Your task to perform on an android device: toggle translation in the chrome app Image 0: 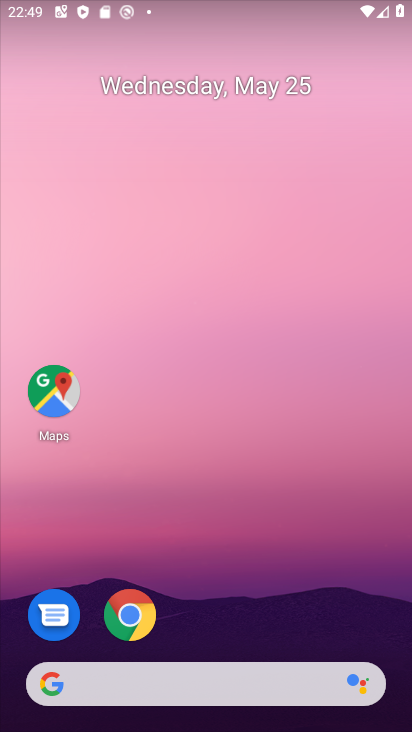
Step 0: click (129, 620)
Your task to perform on an android device: toggle translation in the chrome app Image 1: 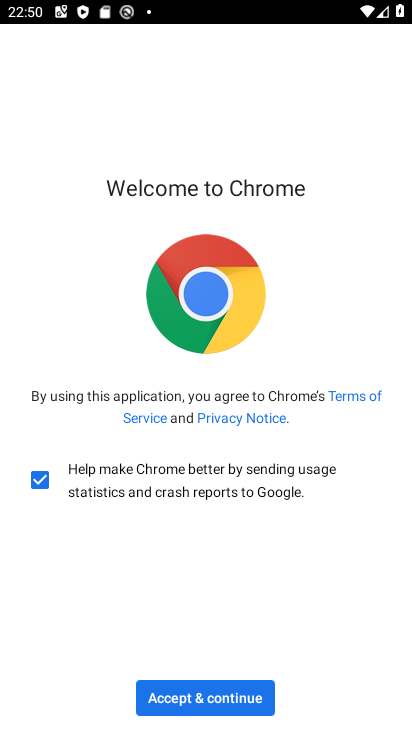
Step 1: click (194, 713)
Your task to perform on an android device: toggle translation in the chrome app Image 2: 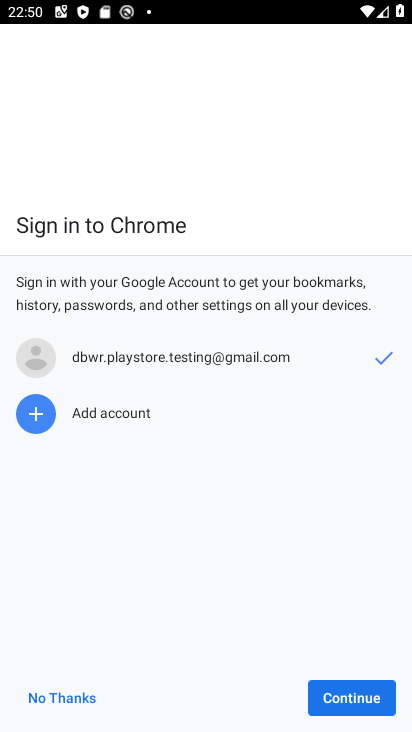
Step 2: click (365, 729)
Your task to perform on an android device: toggle translation in the chrome app Image 3: 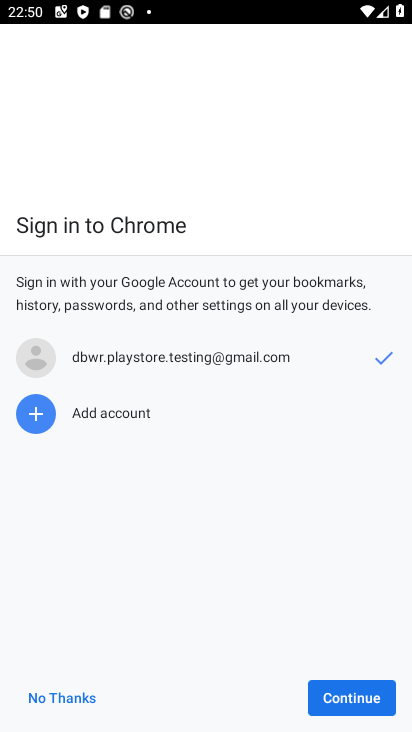
Step 3: click (361, 702)
Your task to perform on an android device: toggle translation in the chrome app Image 4: 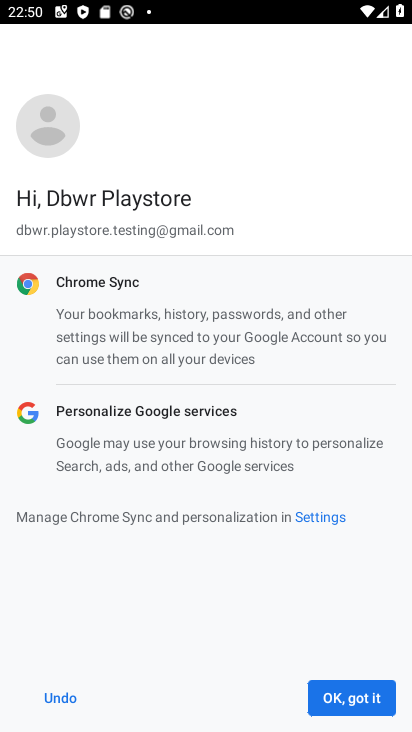
Step 4: click (360, 701)
Your task to perform on an android device: toggle translation in the chrome app Image 5: 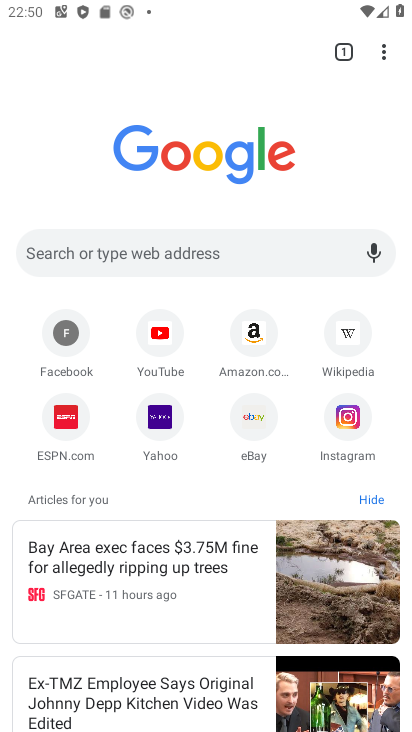
Step 5: click (386, 45)
Your task to perform on an android device: toggle translation in the chrome app Image 6: 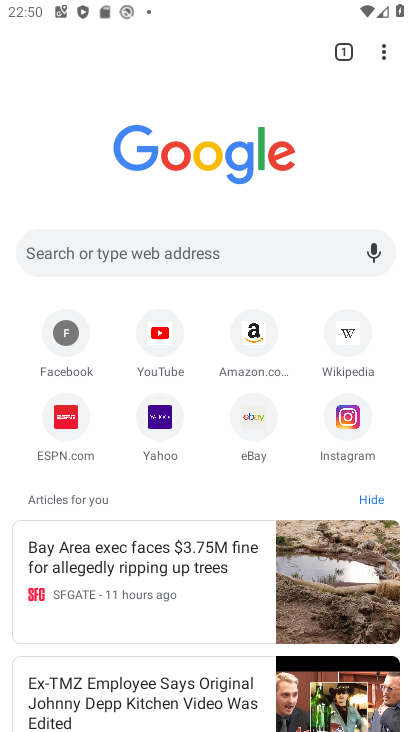
Step 6: click (386, 45)
Your task to perform on an android device: toggle translation in the chrome app Image 7: 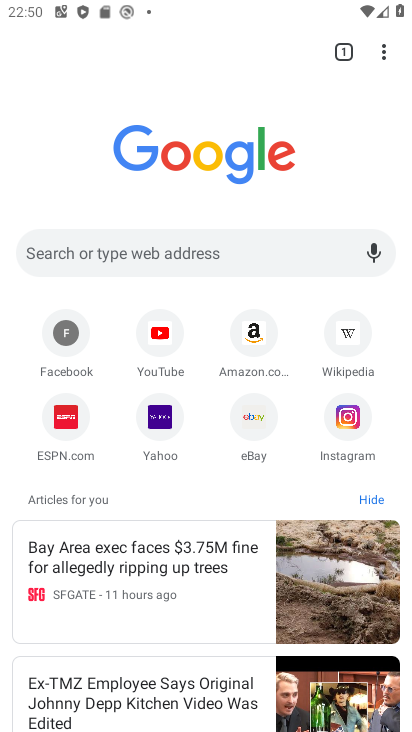
Step 7: drag from (387, 65) to (233, 446)
Your task to perform on an android device: toggle translation in the chrome app Image 8: 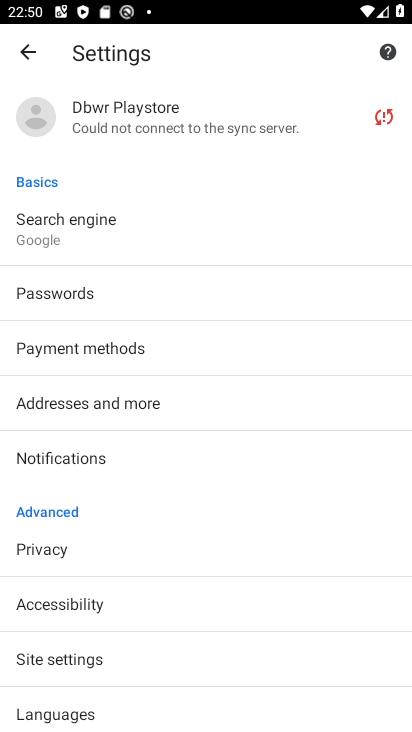
Step 8: click (100, 710)
Your task to perform on an android device: toggle translation in the chrome app Image 9: 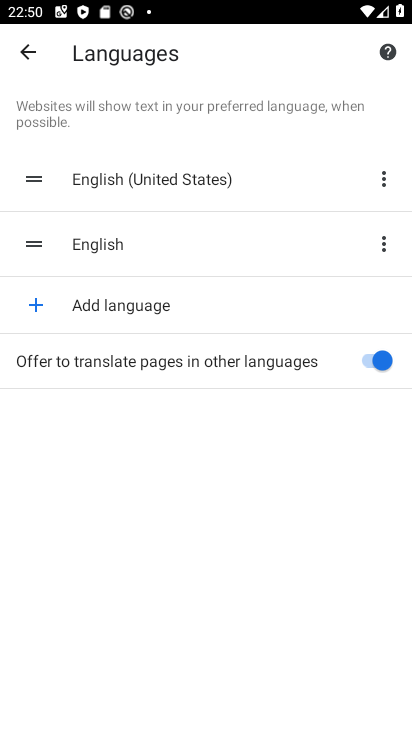
Step 9: click (389, 359)
Your task to perform on an android device: toggle translation in the chrome app Image 10: 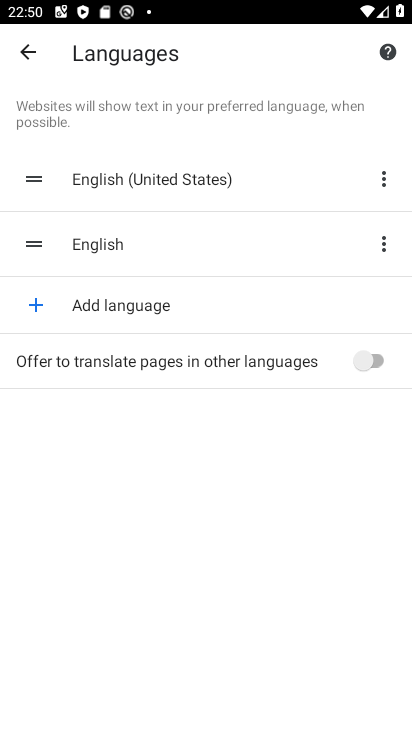
Step 10: task complete